Your task to perform on an android device: turn notification dots on Image 0: 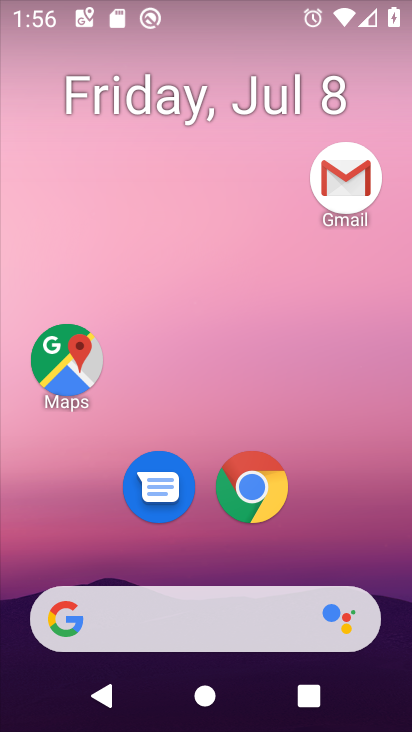
Step 0: drag from (367, 543) to (403, 109)
Your task to perform on an android device: turn notification dots on Image 1: 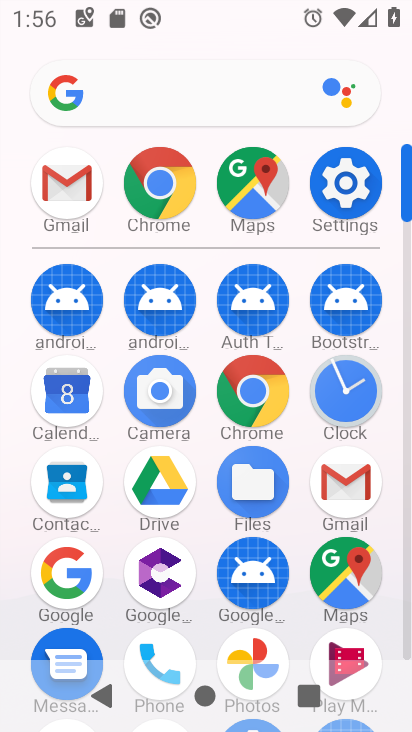
Step 1: click (353, 194)
Your task to perform on an android device: turn notification dots on Image 2: 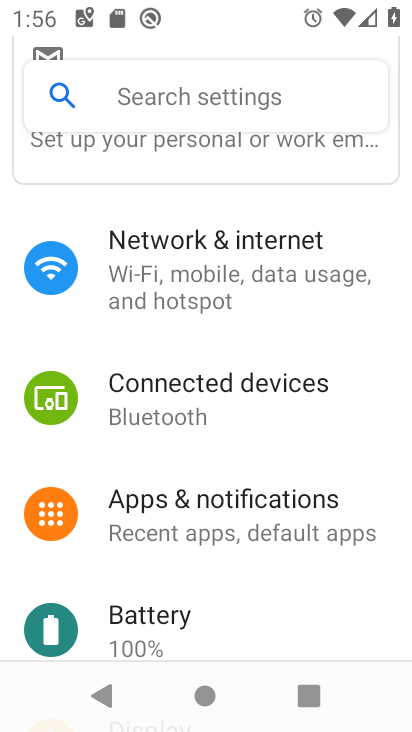
Step 2: drag from (370, 443) to (376, 324)
Your task to perform on an android device: turn notification dots on Image 3: 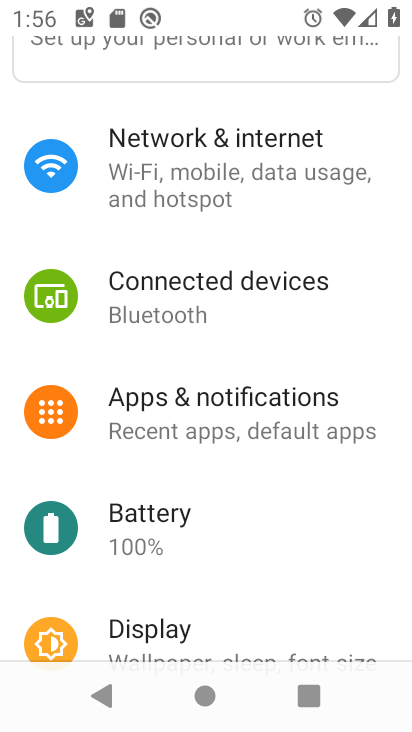
Step 3: drag from (369, 533) to (368, 345)
Your task to perform on an android device: turn notification dots on Image 4: 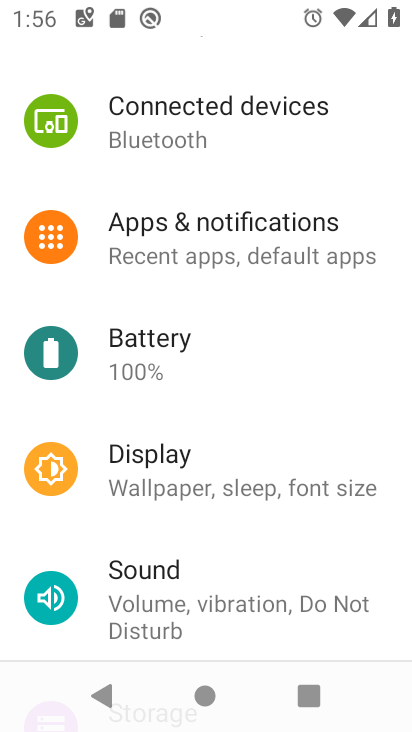
Step 4: click (294, 244)
Your task to perform on an android device: turn notification dots on Image 5: 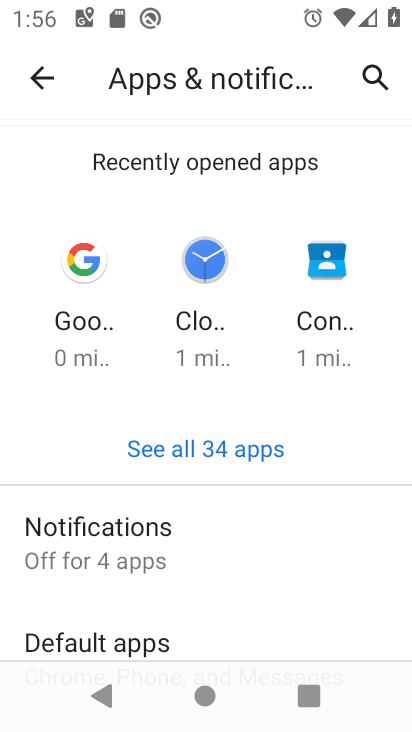
Step 5: click (192, 539)
Your task to perform on an android device: turn notification dots on Image 6: 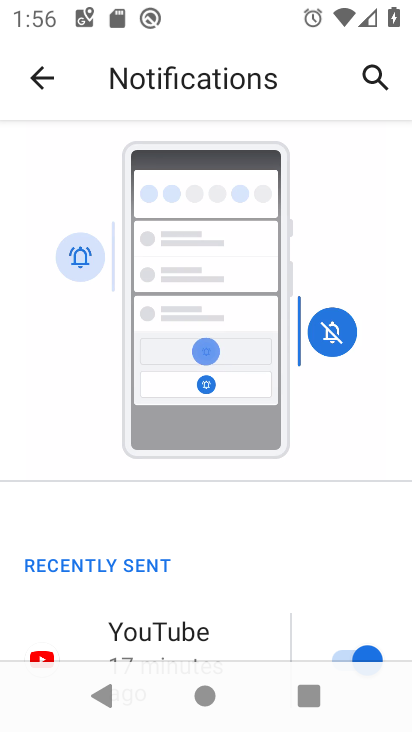
Step 6: drag from (334, 542) to (343, 402)
Your task to perform on an android device: turn notification dots on Image 7: 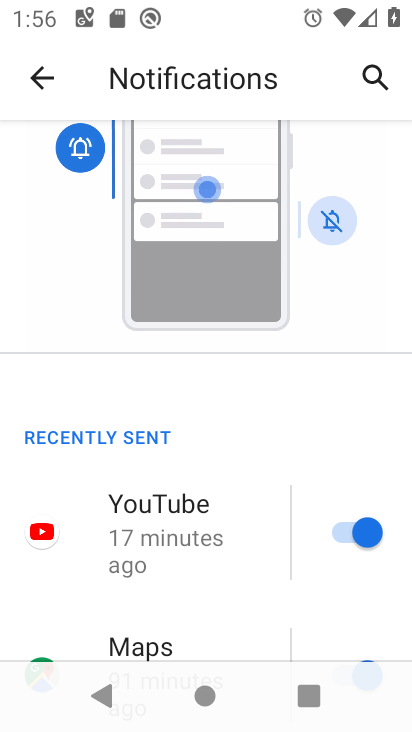
Step 7: drag from (259, 609) to (258, 399)
Your task to perform on an android device: turn notification dots on Image 8: 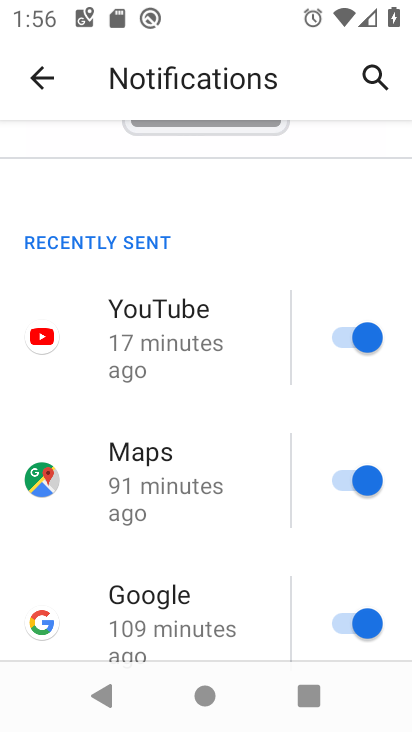
Step 8: drag from (266, 583) to (265, 437)
Your task to perform on an android device: turn notification dots on Image 9: 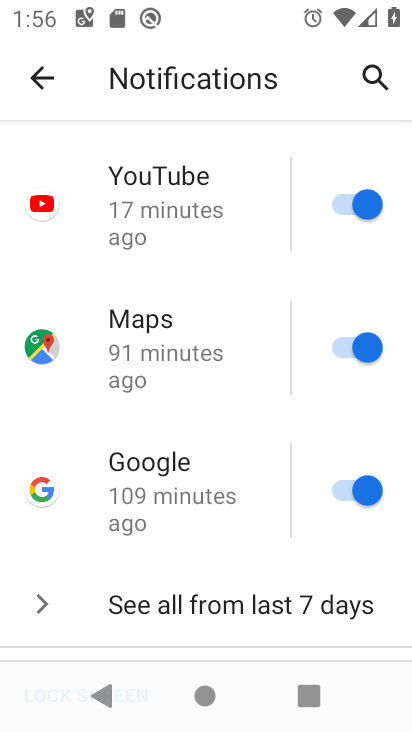
Step 9: drag from (263, 562) to (255, 442)
Your task to perform on an android device: turn notification dots on Image 10: 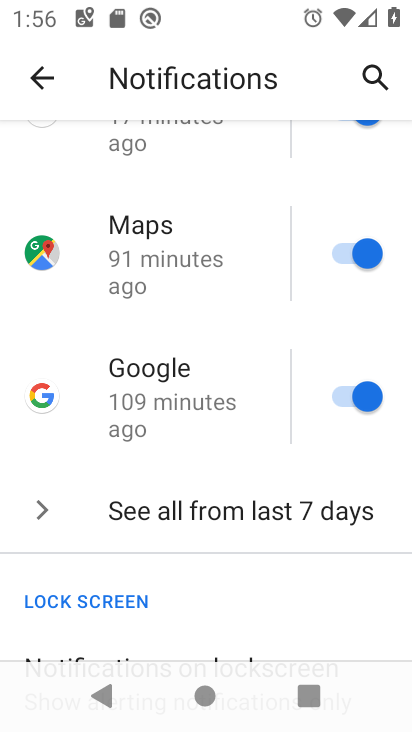
Step 10: drag from (263, 581) to (255, 405)
Your task to perform on an android device: turn notification dots on Image 11: 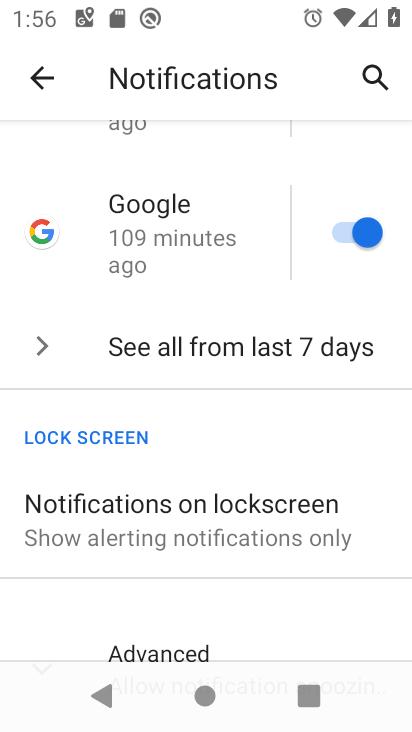
Step 11: drag from (264, 528) to (271, 401)
Your task to perform on an android device: turn notification dots on Image 12: 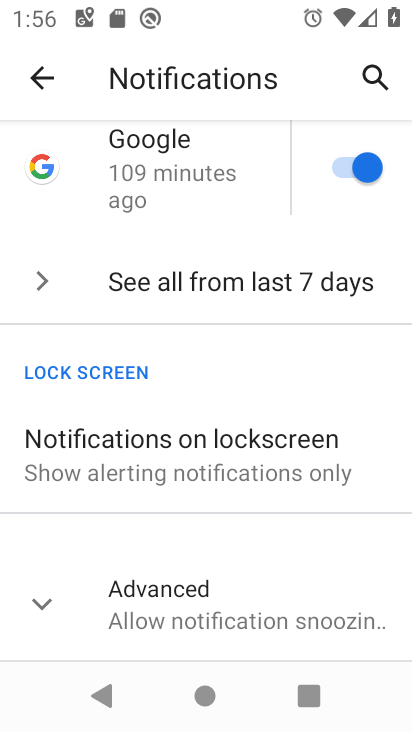
Step 12: click (280, 602)
Your task to perform on an android device: turn notification dots on Image 13: 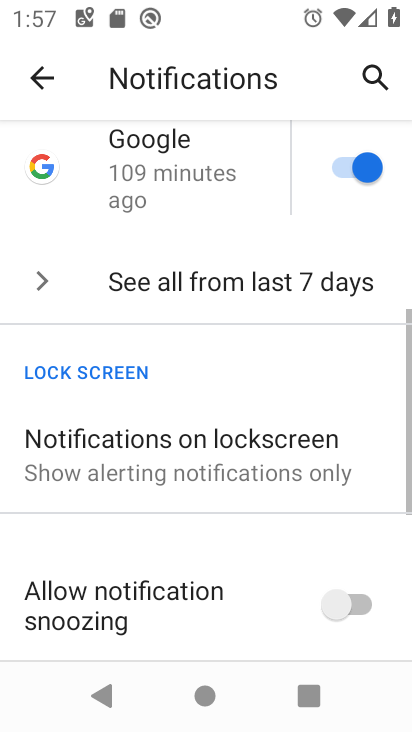
Step 13: drag from (301, 522) to (288, 333)
Your task to perform on an android device: turn notification dots on Image 14: 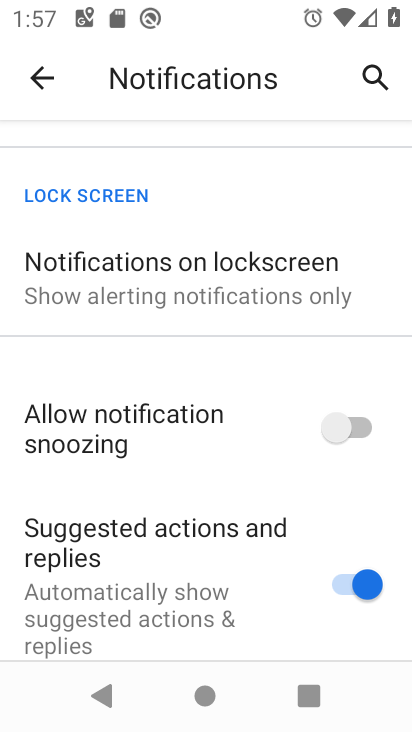
Step 14: drag from (280, 588) to (277, 366)
Your task to perform on an android device: turn notification dots on Image 15: 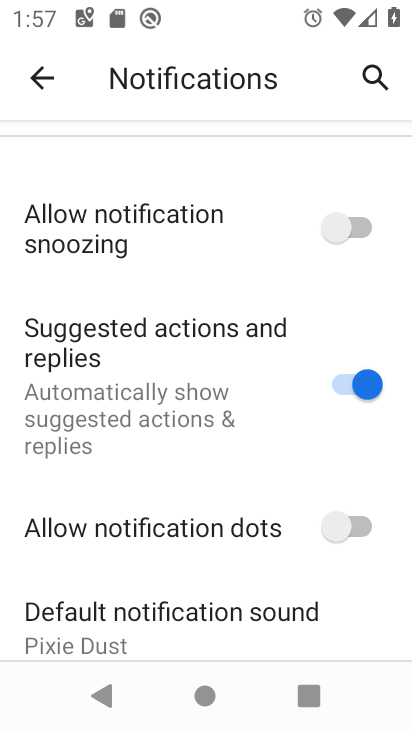
Step 15: click (345, 530)
Your task to perform on an android device: turn notification dots on Image 16: 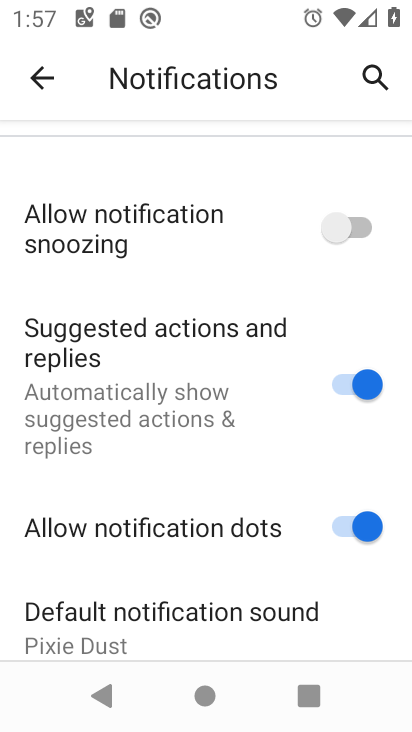
Step 16: task complete